Your task to perform on an android device: turn on airplane mode Image 0: 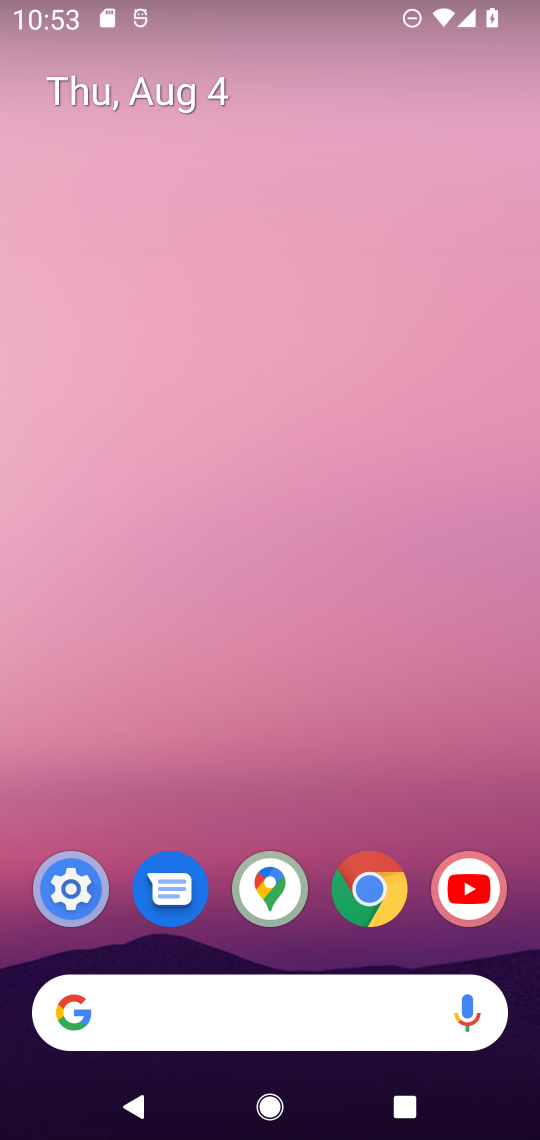
Step 0: drag from (451, 784) to (451, 220)
Your task to perform on an android device: turn on airplane mode Image 1: 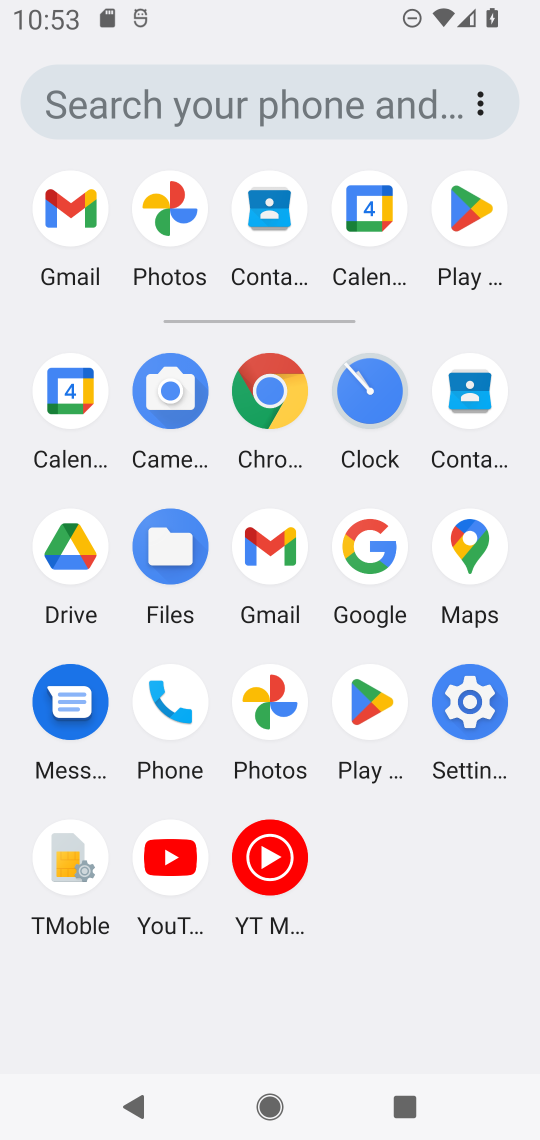
Step 1: click (465, 715)
Your task to perform on an android device: turn on airplane mode Image 2: 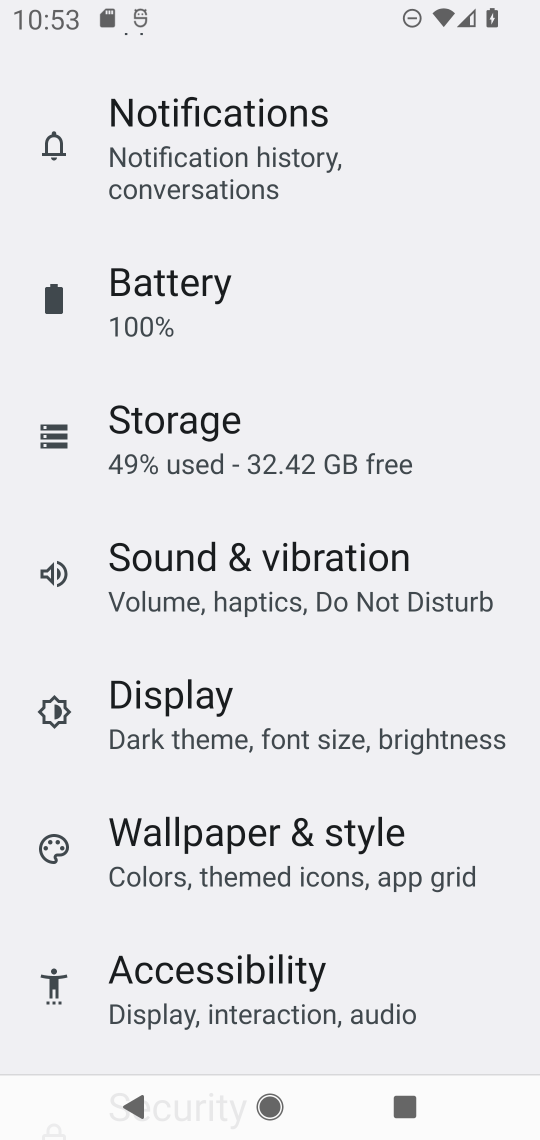
Step 2: drag from (457, 297) to (462, 516)
Your task to perform on an android device: turn on airplane mode Image 3: 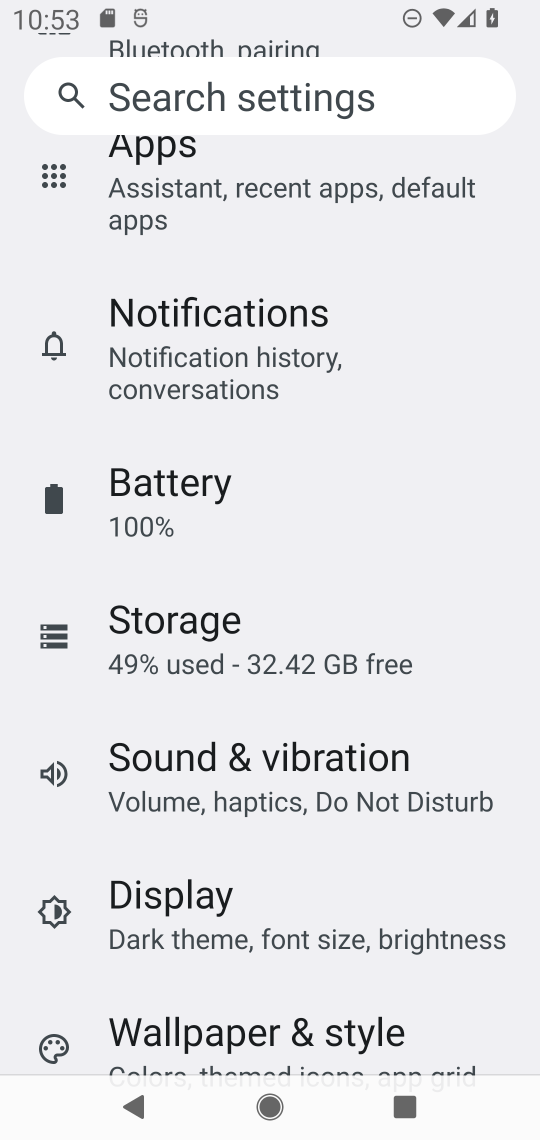
Step 3: drag from (453, 276) to (457, 548)
Your task to perform on an android device: turn on airplane mode Image 4: 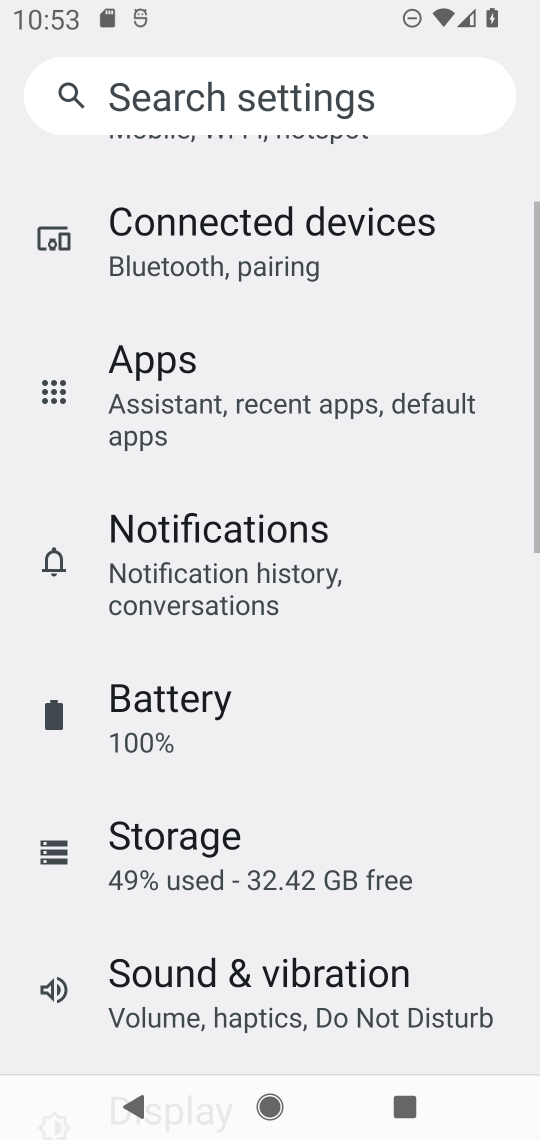
Step 4: drag from (456, 262) to (449, 562)
Your task to perform on an android device: turn on airplane mode Image 5: 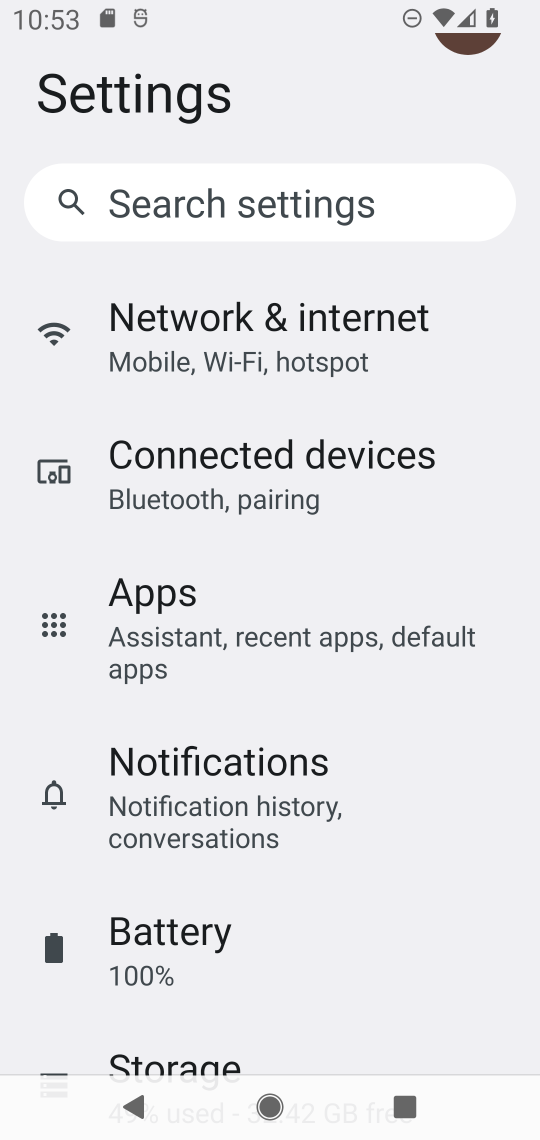
Step 5: drag from (472, 302) to (470, 557)
Your task to perform on an android device: turn on airplane mode Image 6: 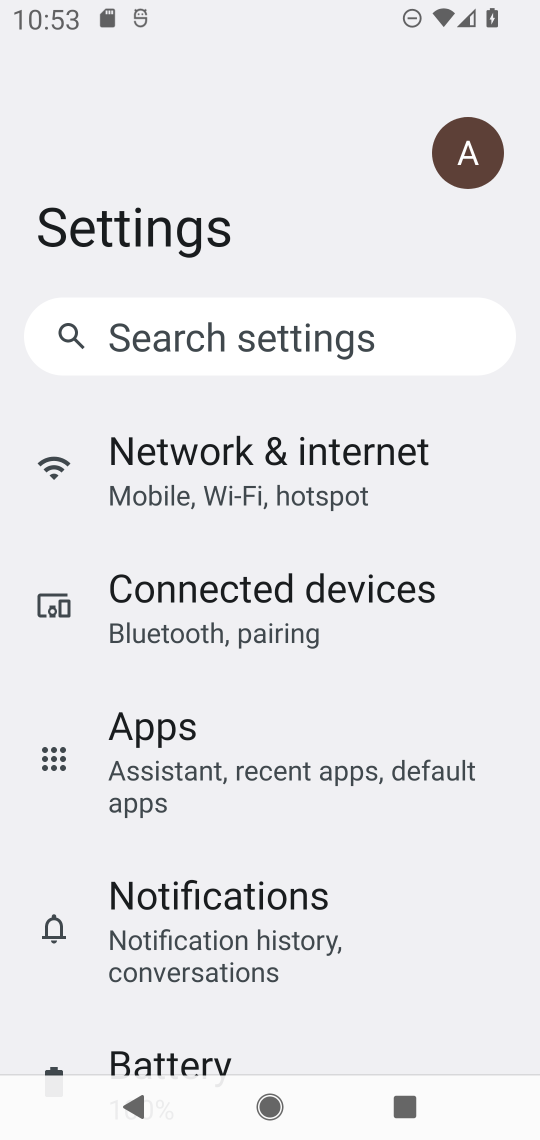
Step 6: click (302, 471)
Your task to perform on an android device: turn on airplane mode Image 7: 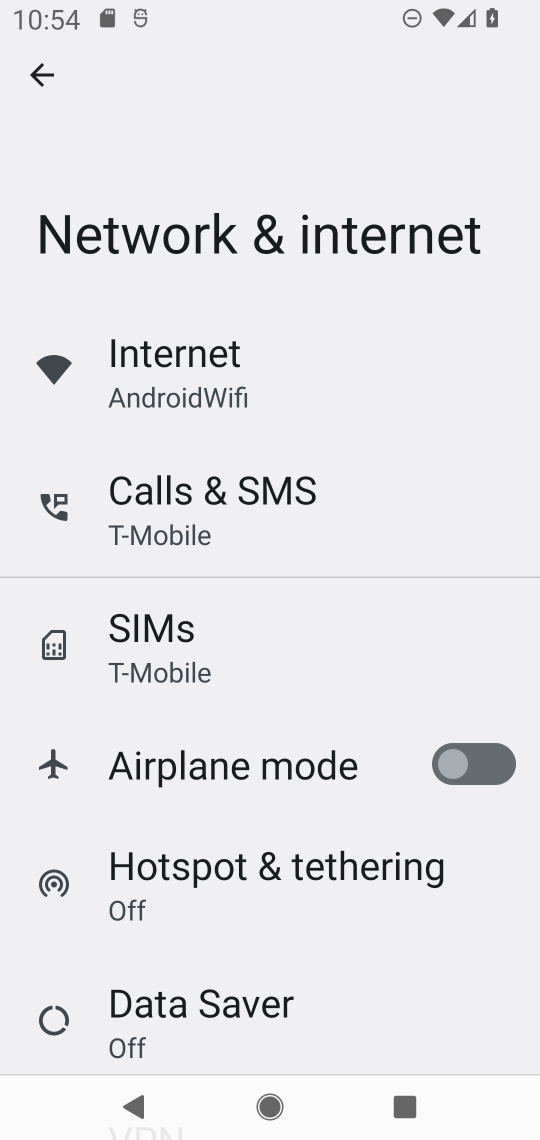
Step 7: drag from (327, 843) to (345, 619)
Your task to perform on an android device: turn on airplane mode Image 8: 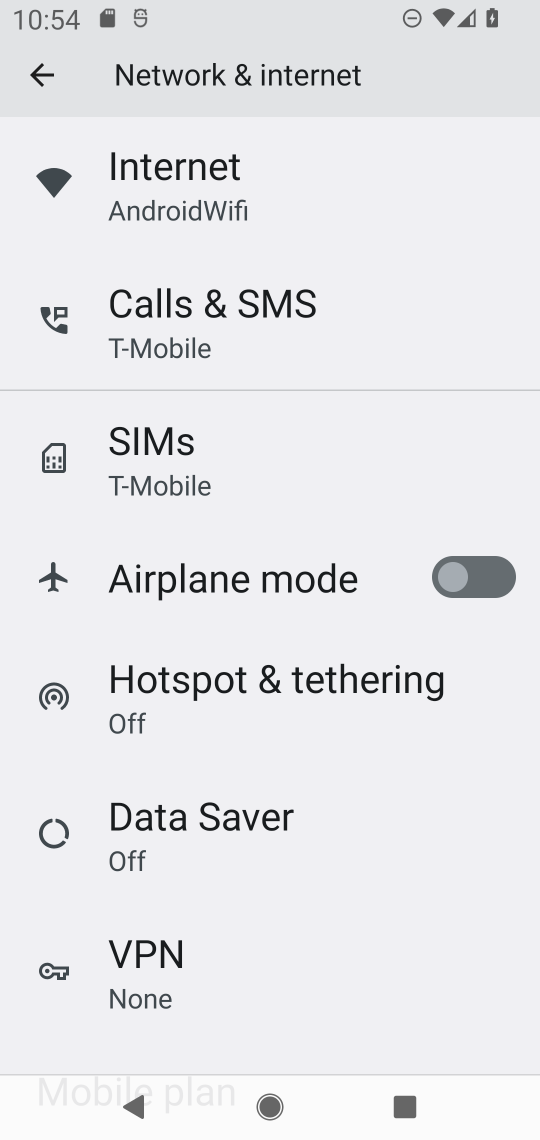
Step 8: drag from (346, 850) to (354, 552)
Your task to perform on an android device: turn on airplane mode Image 9: 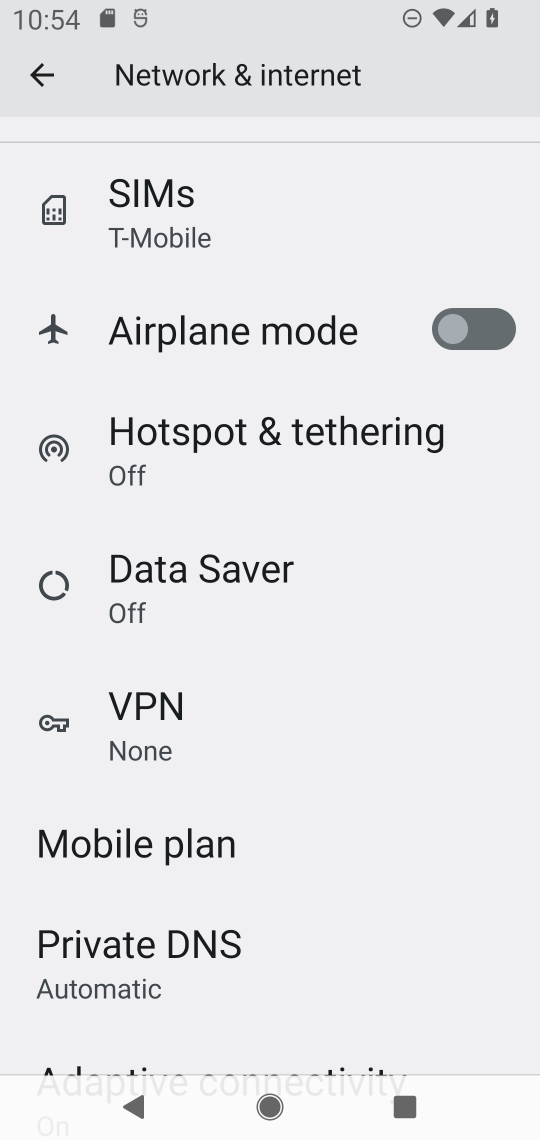
Step 9: drag from (379, 237) to (374, 582)
Your task to perform on an android device: turn on airplane mode Image 10: 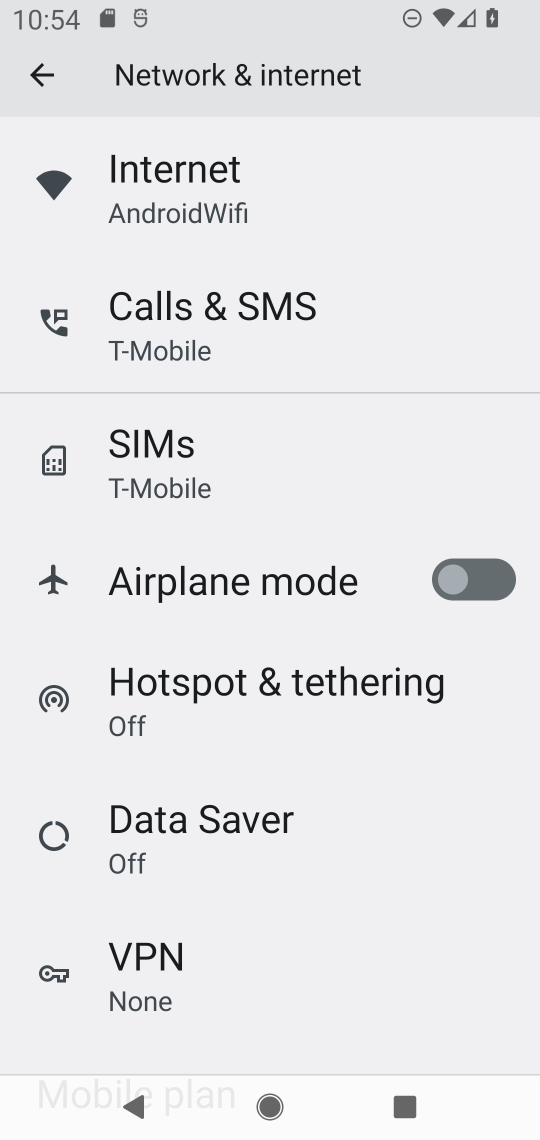
Step 10: drag from (367, 257) to (353, 658)
Your task to perform on an android device: turn on airplane mode Image 11: 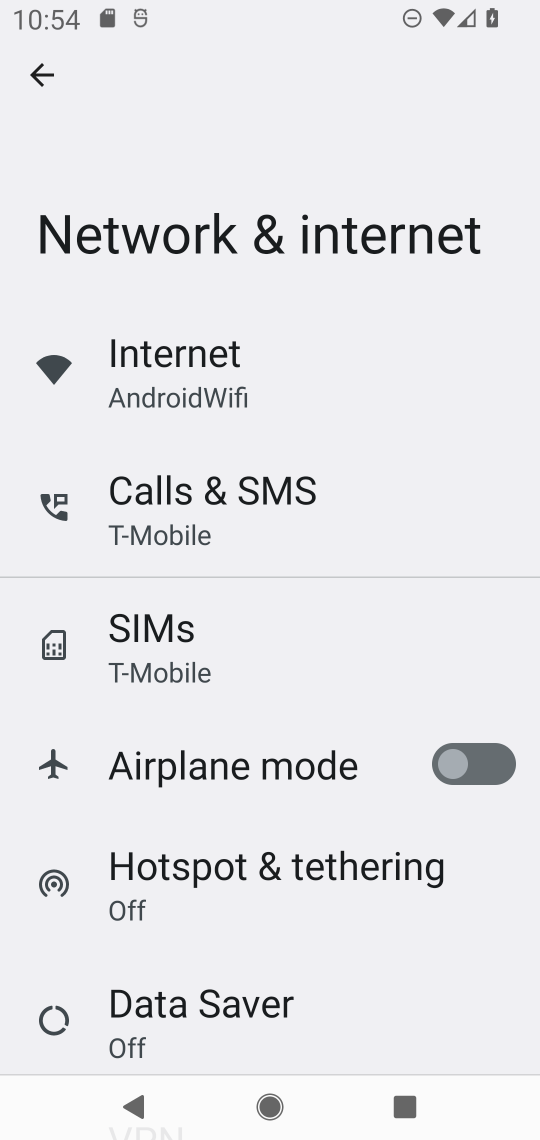
Step 11: click (453, 761)
Your task to perform on an android device: turn on airplane mode Image 12: 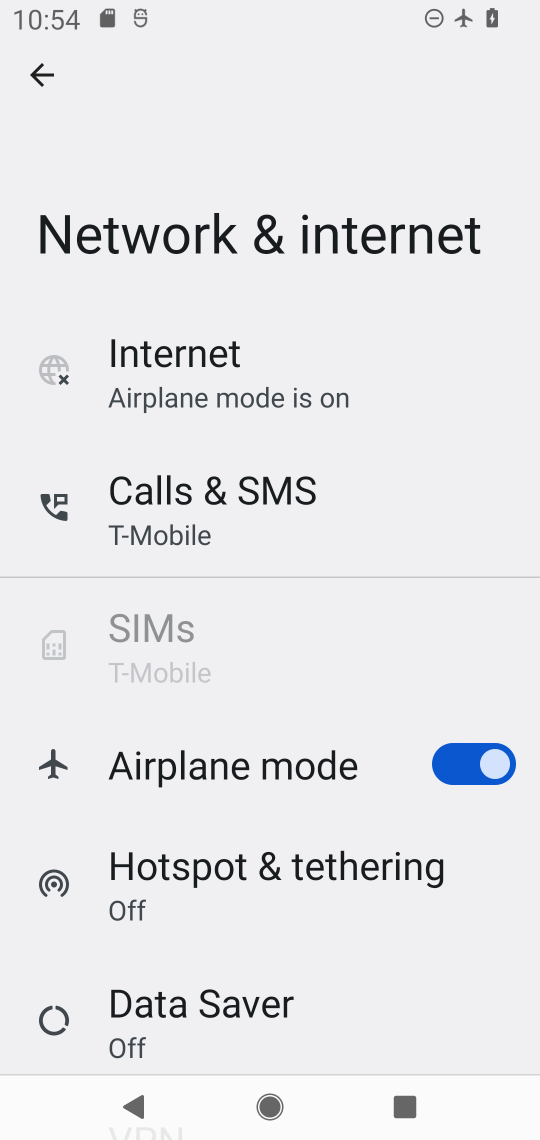
Step 12: task complete